Your task to perform on an android device: What's on my calendar today? Image 0: 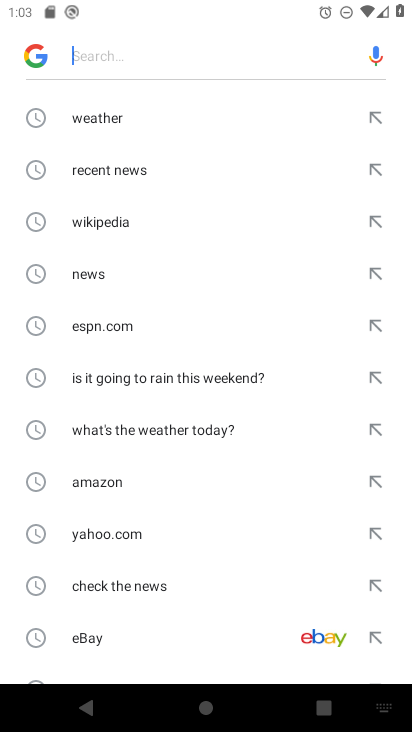
Step 0: press home button
Your task to perform on an android device: What's on my calendar today? Image 1: 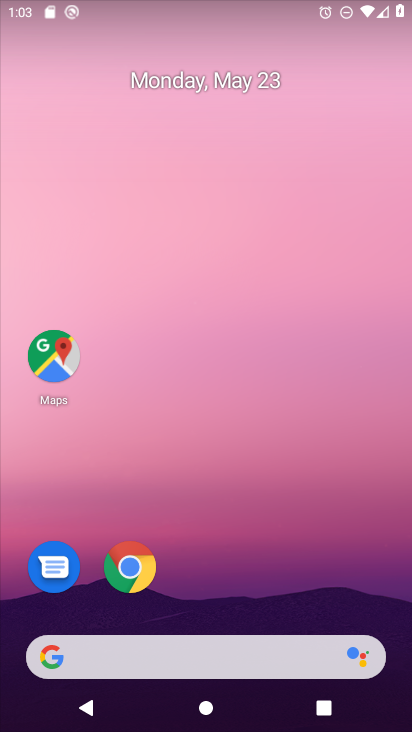
Step 1: click (199, 88)
Your task to perform on an android device: What's on my calendar today? Image 2: 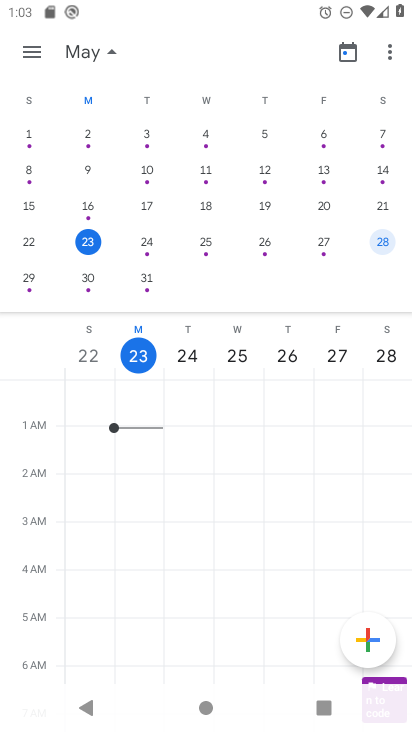
Step 2: task complete